Your task to perform on an android device: Open network settings Image 0: 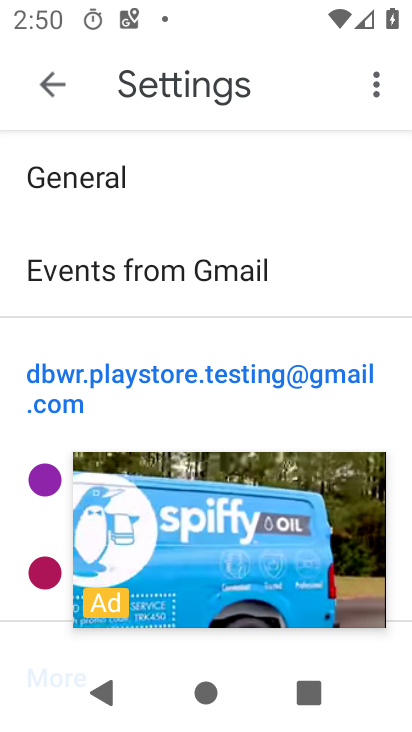
Step 0: press home button
Your task to perform on an android device: Open network settings Image 1: 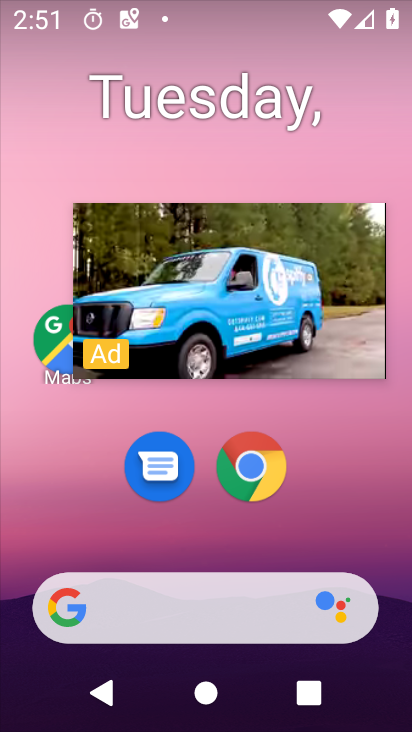
Step 1: drag from (334, 515) to (354, 112)
Your task to perform on an android device: Open network settings Image 2: 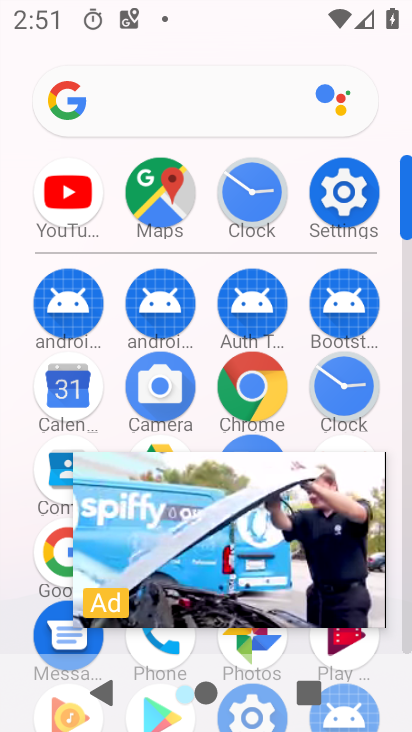
Step 2: click (360, 216)
Your task to perform on an android device: Open network settings Image 3: 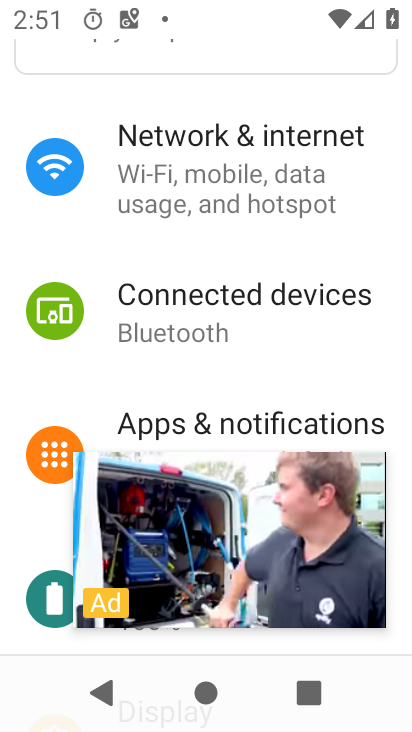
Step 3: click (321, 199)
Your task to perform on an android device: Open network settings Image 4: 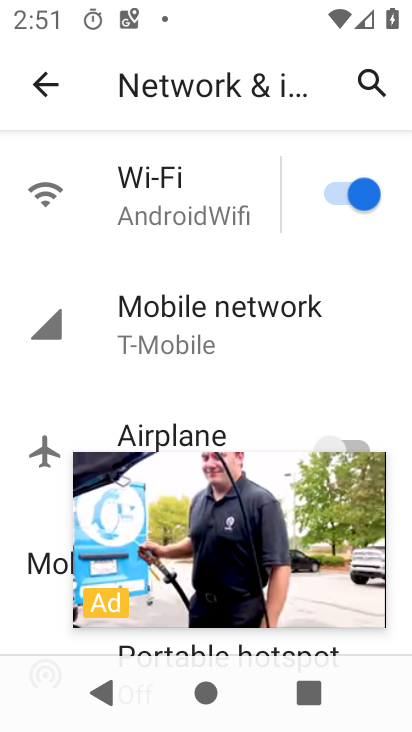
Step 4: task complete